Your task to perform on an android device: Add "panasonic triple a" to the cart on amazon Image 0: 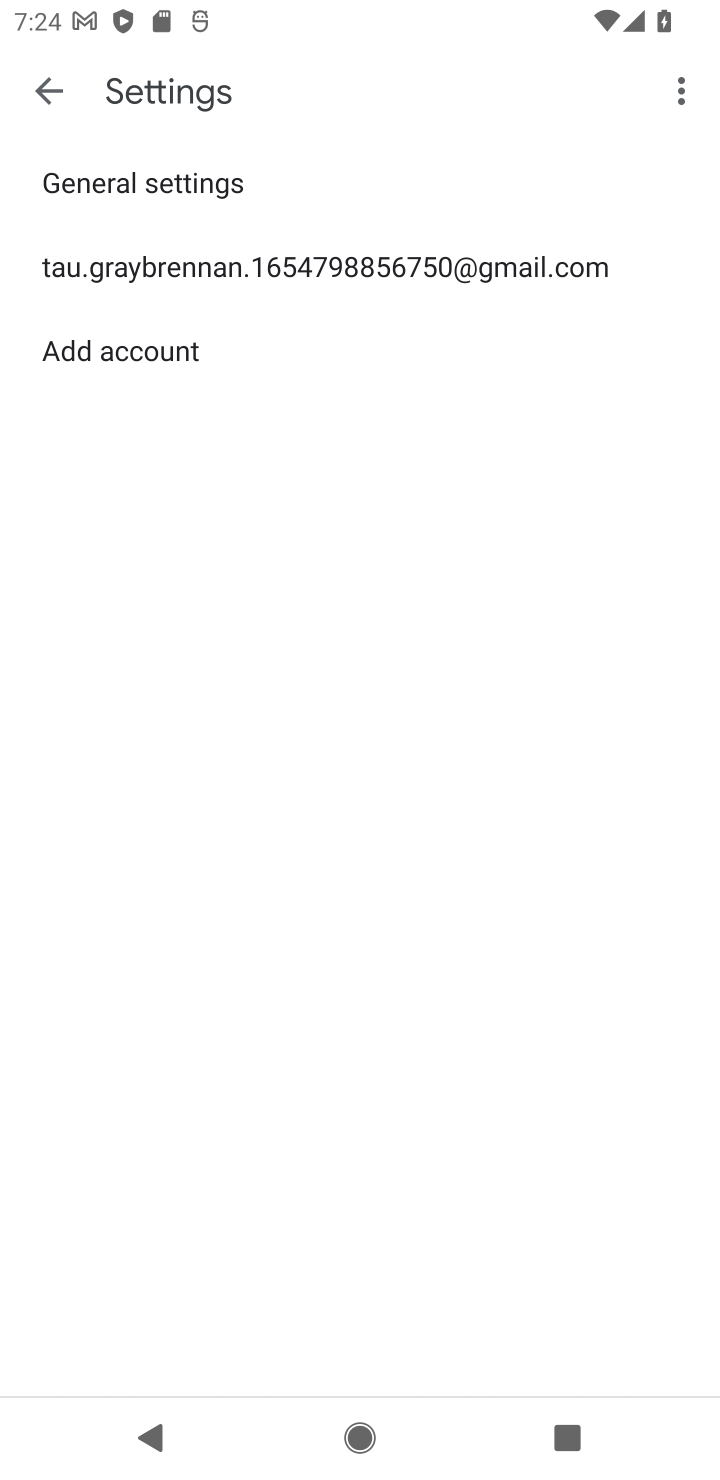
Step 0: press home button
Your task to perform on an android device: Add "panasonic triple a" to the cart on amazon Image 1: 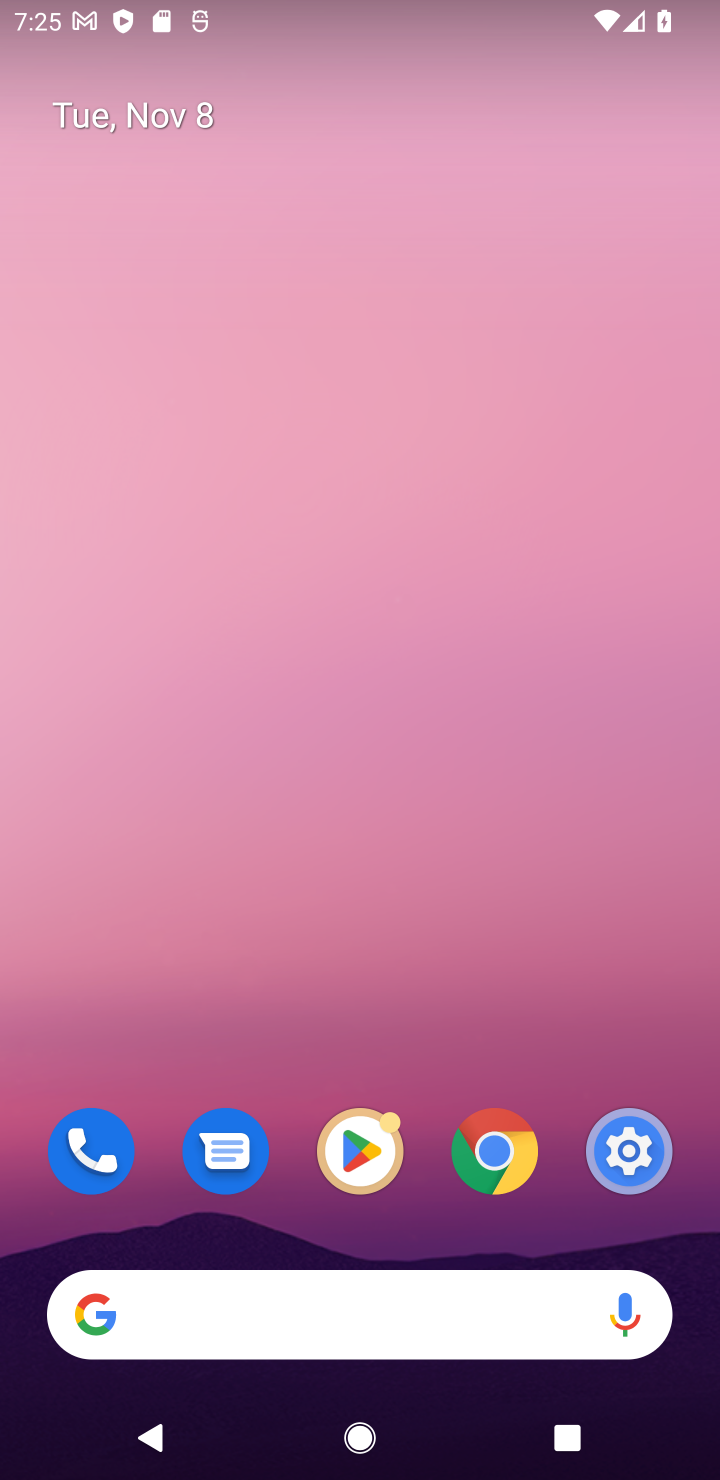
Step 1: press home button
Your task to perform on an android device: Add "panasonic triple a" to the cart on amazon Image 2: 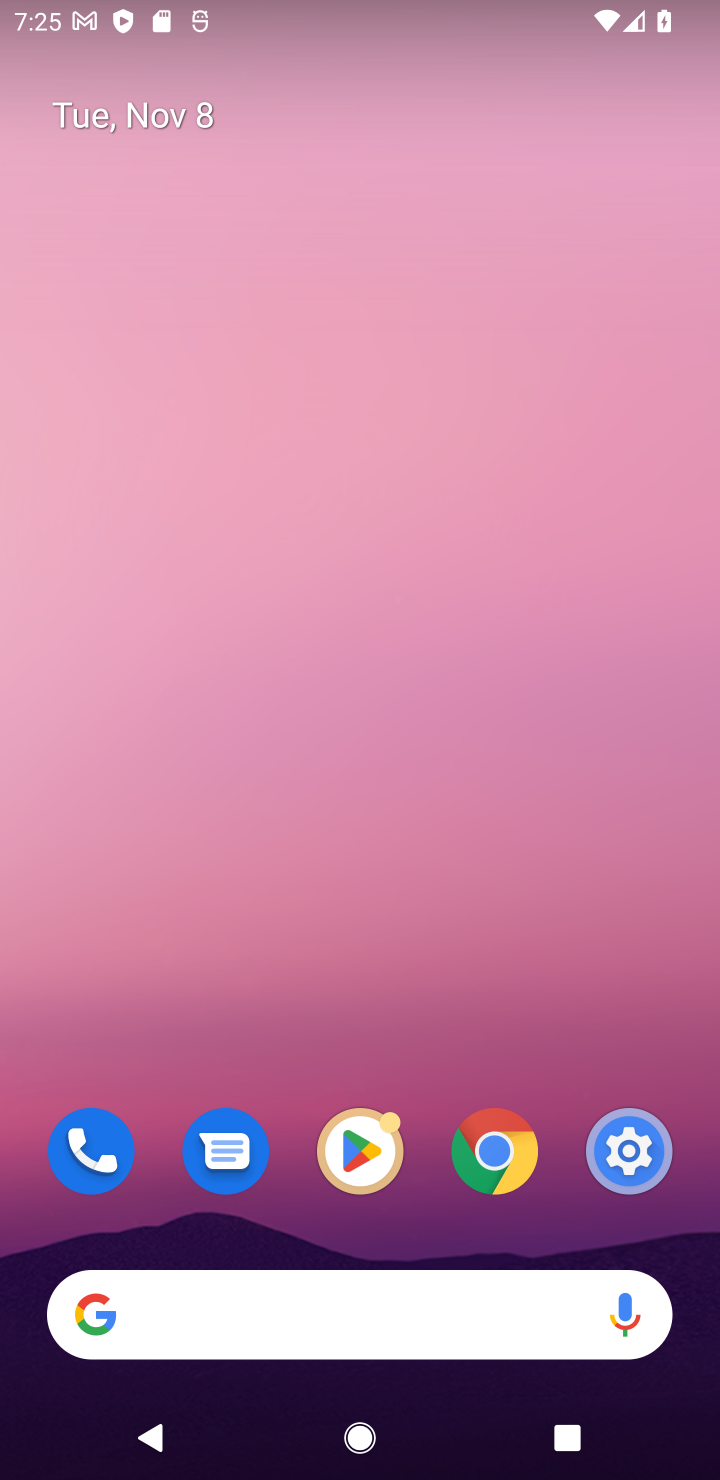
Step 2: click (328, 1350)
Your task to perform on an android device: Add "panasonic triple a" to the cart on amazon Image 3: 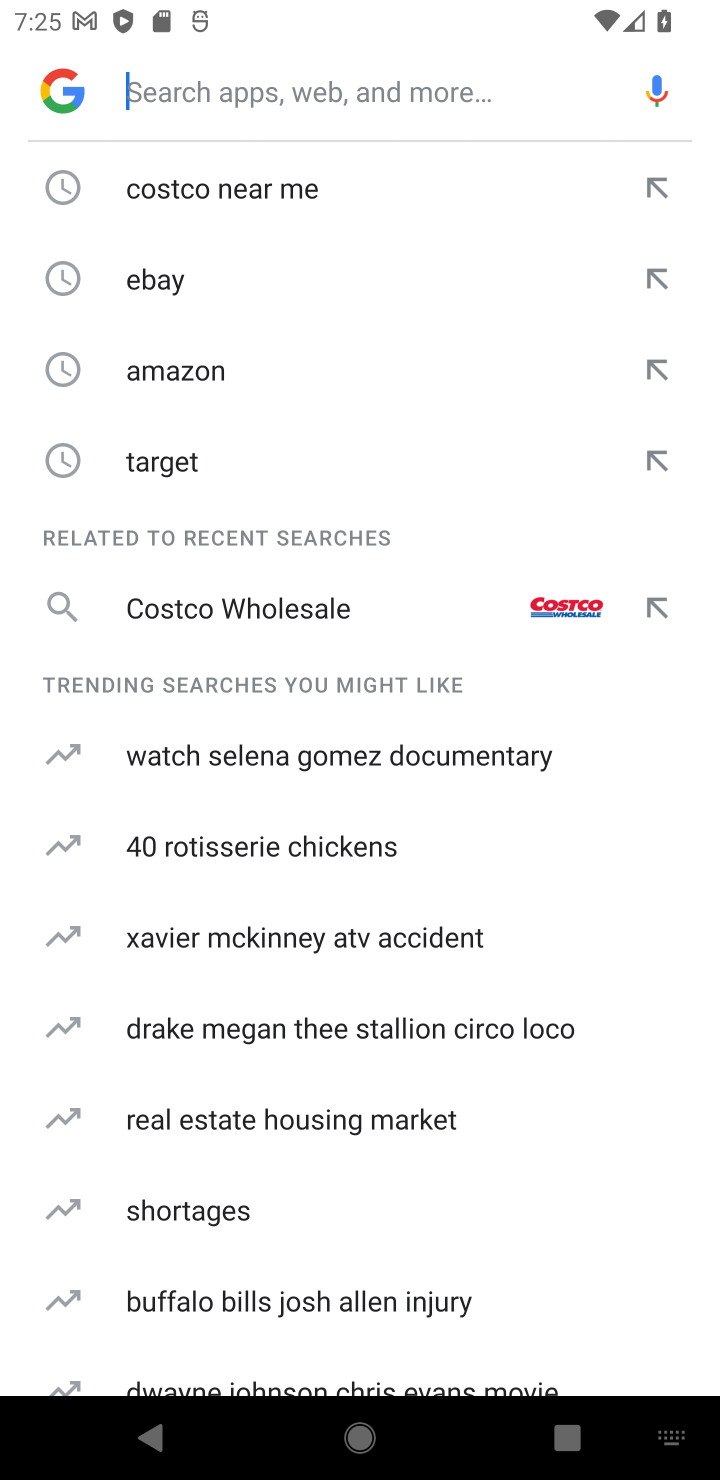
Step 3: type "amazon"
Your task to perform on an android device: Add "panasonic triple a" to the cart on amazon Image 4: 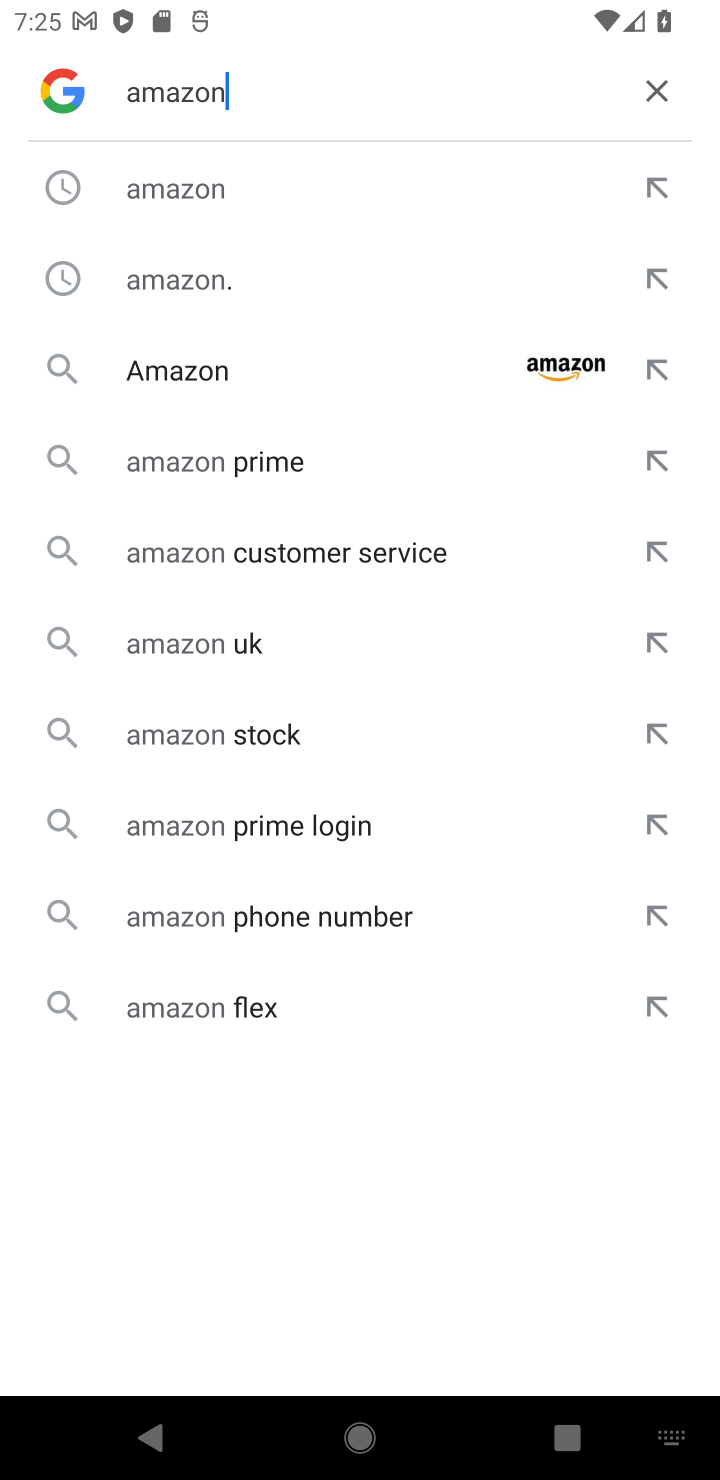
Step 4: click (304, 395)
Your task to perform on an android device: Add "panasonic triple a" to the cart on amazon Image 5: 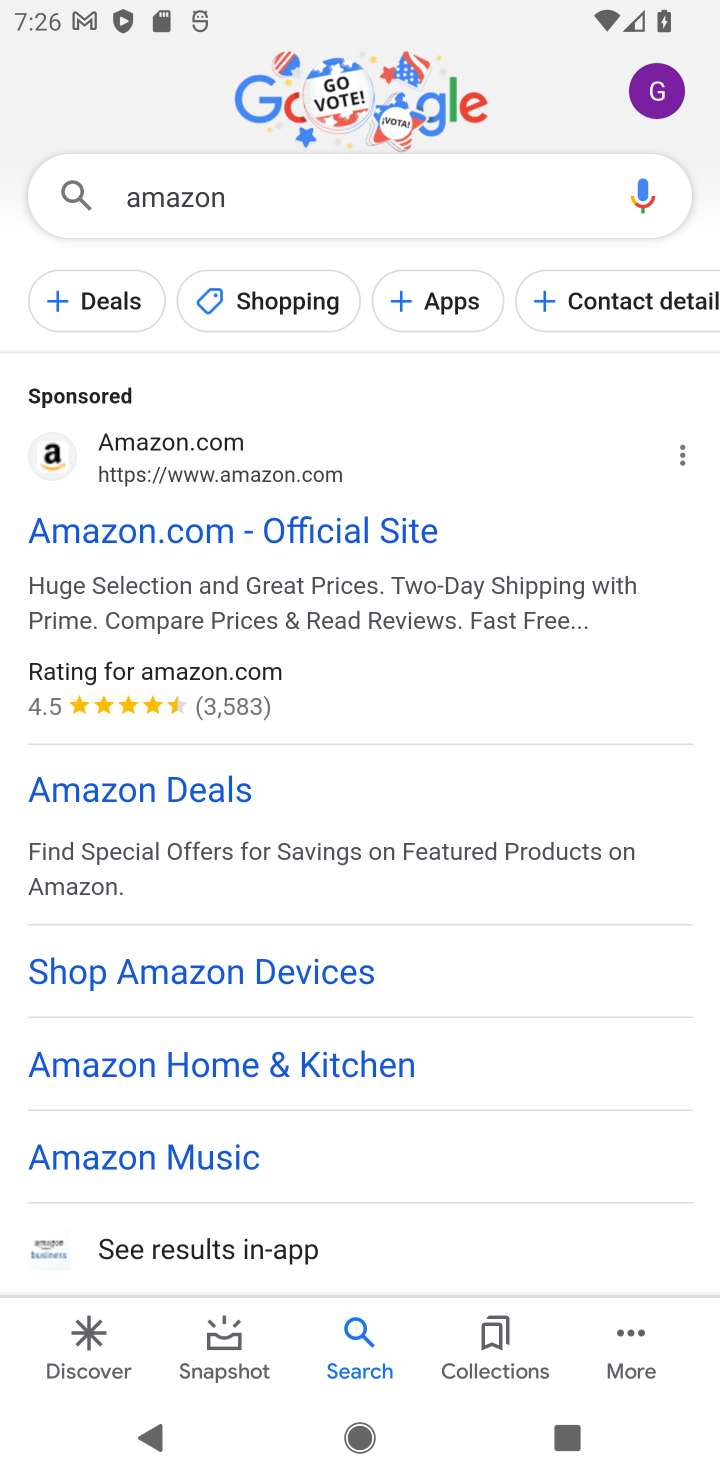
Step 5: click (103, 524)
Your task to perform on an android device: Add "panasonic triple a" to the cart on amazon Image 6: 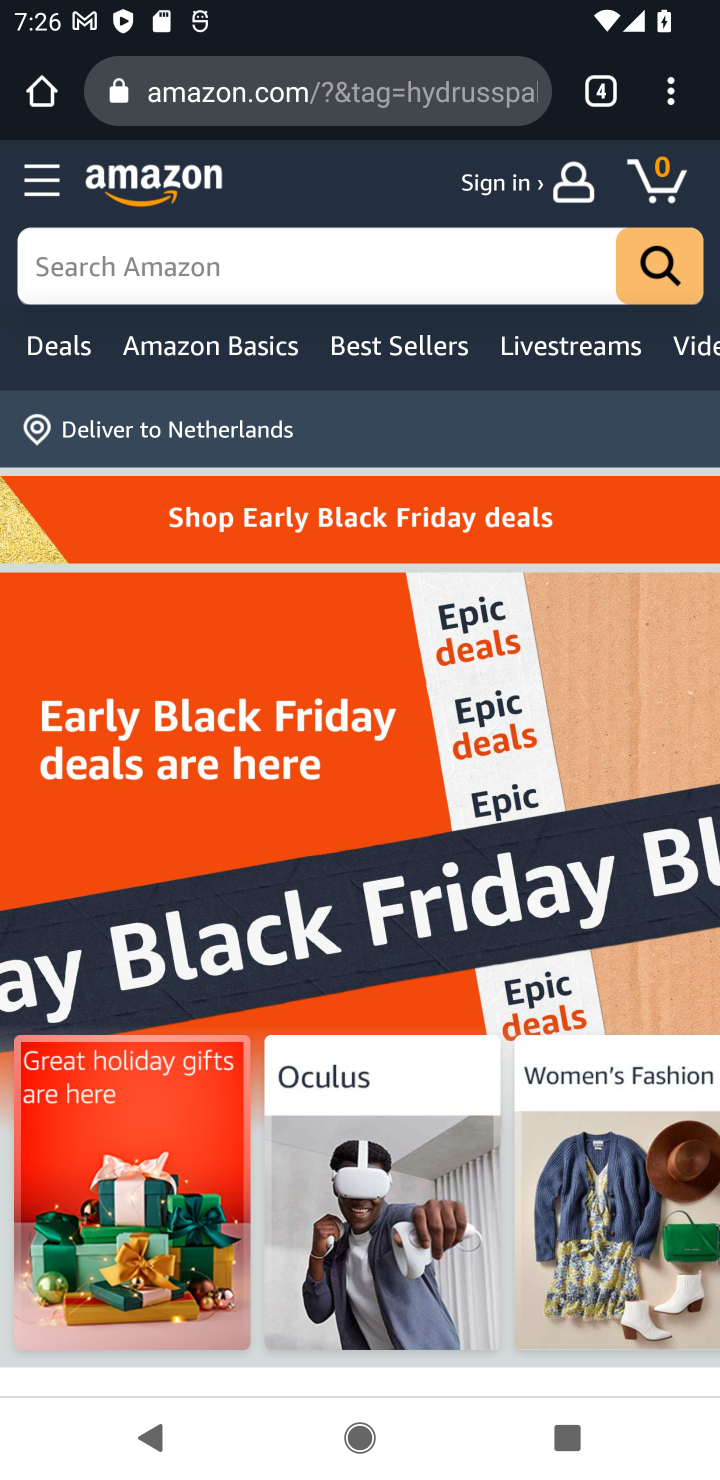
Step 6: click (378, 274)
Your task to perform on an android device: Add "panasonic triple a" to the cart on amazon Image 7: 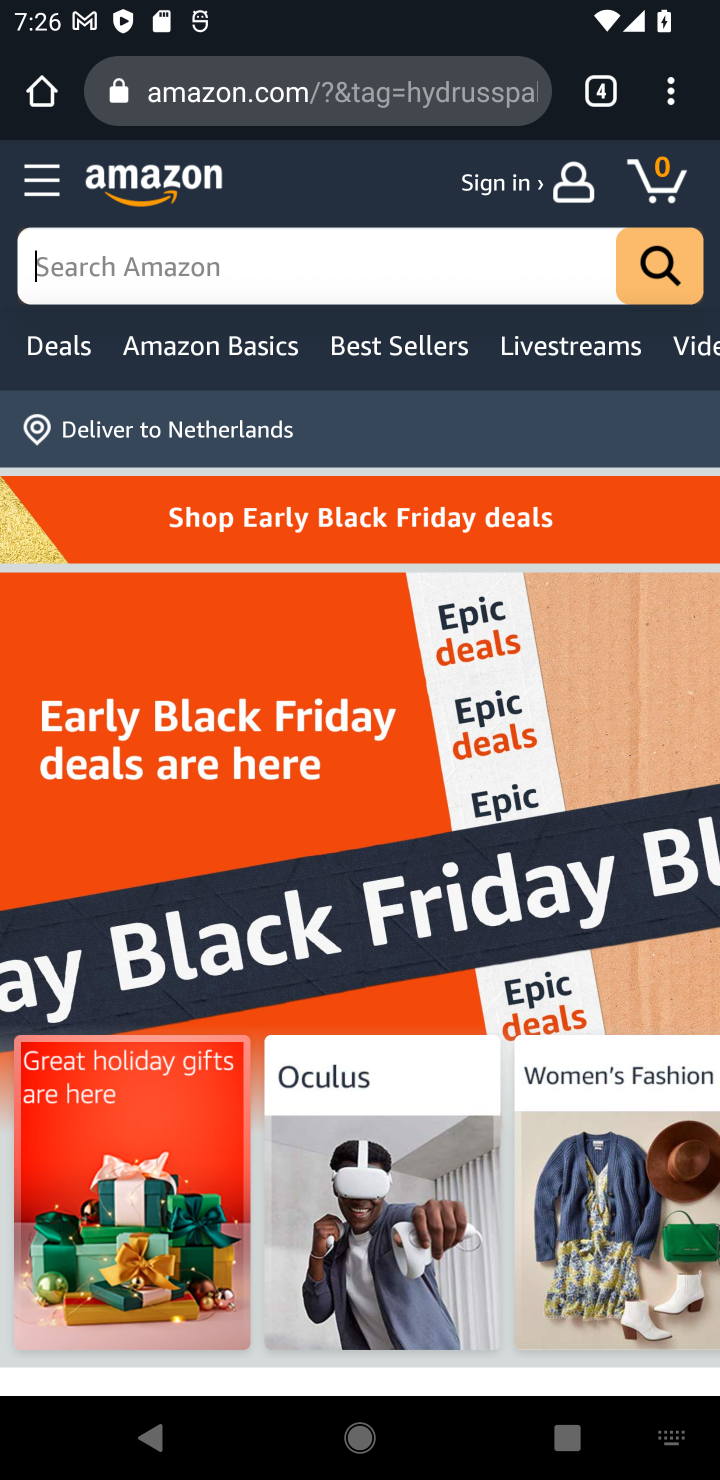
Step 7: type "panasonic"
Your task to perform on an android device: Add "panasonic triple a" to the cart on amazon Image 8: 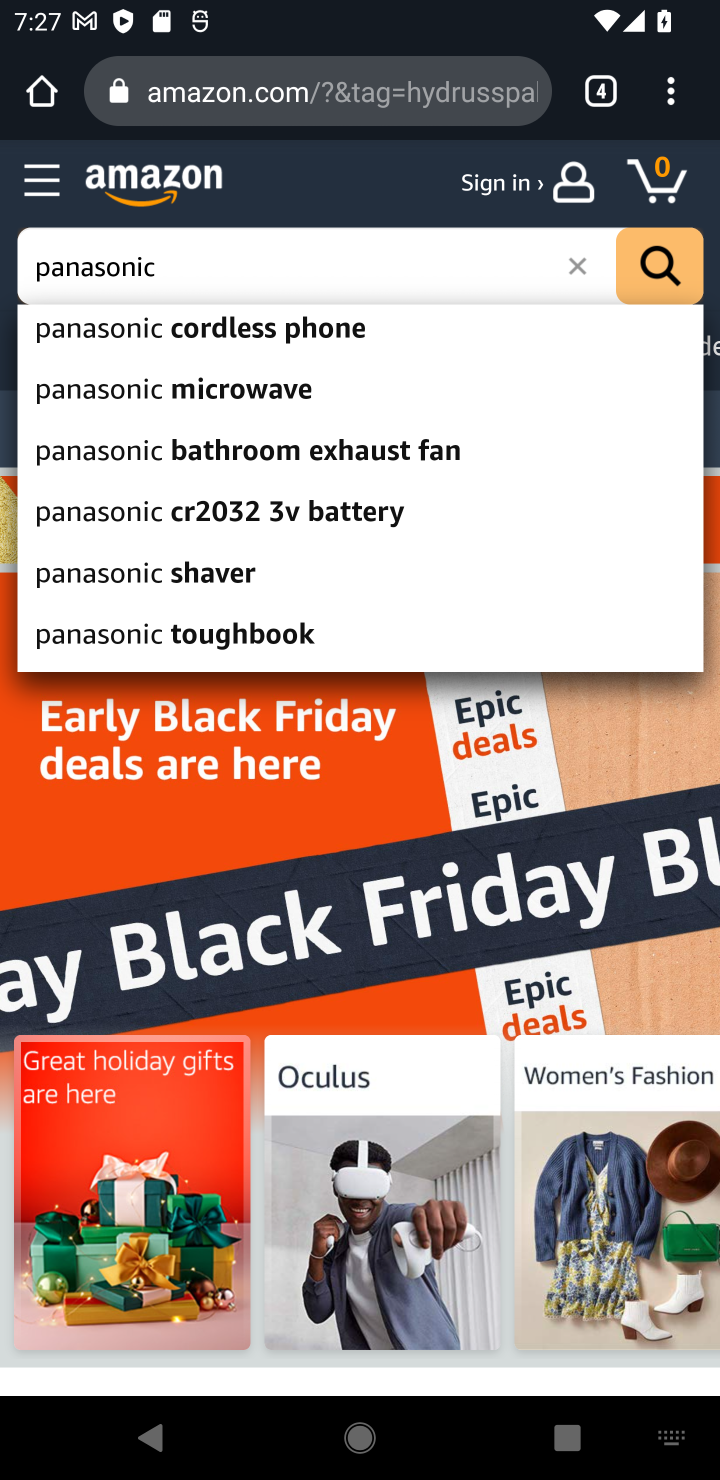
Step 8: type " triple aaa"
Your task to perform on an android device: Add "panasonic triple a" to the cart on amazon Image 9: 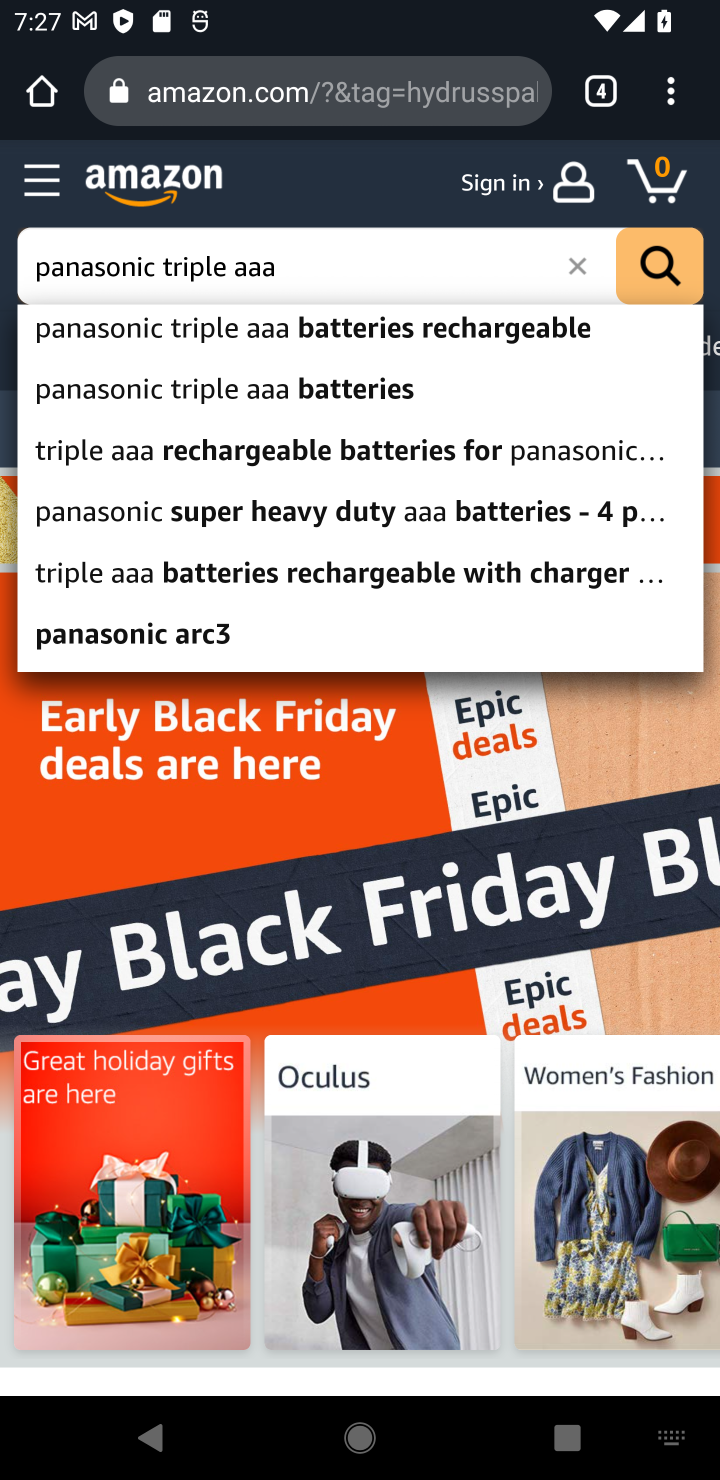
Step 9: click (382, 332)
Your task to perform on an android device: Add "panasonic triple a" to the cart on amazon Image 10: 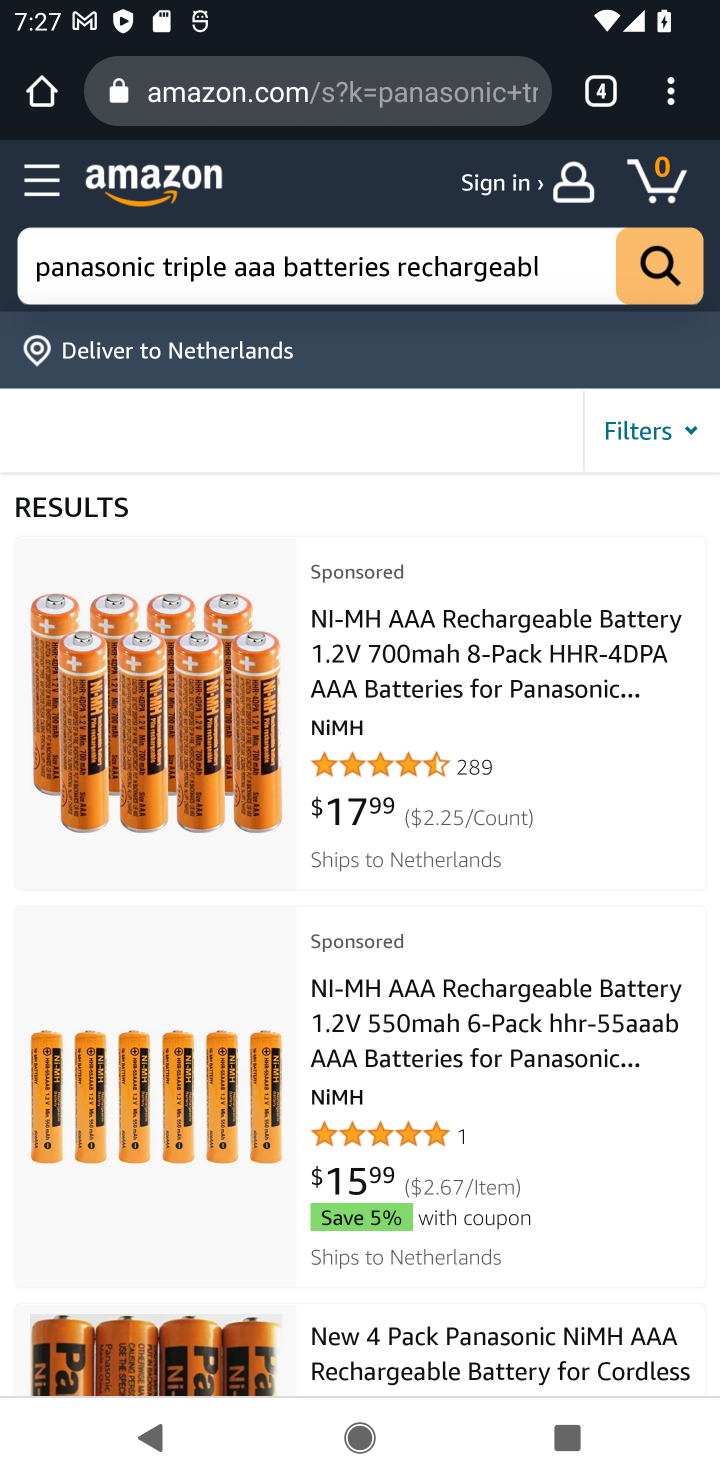
Step 10: click (363, 600)
Your task to perform on an android device: Add "panasonic triple a" to the cart on amazon Image 11: 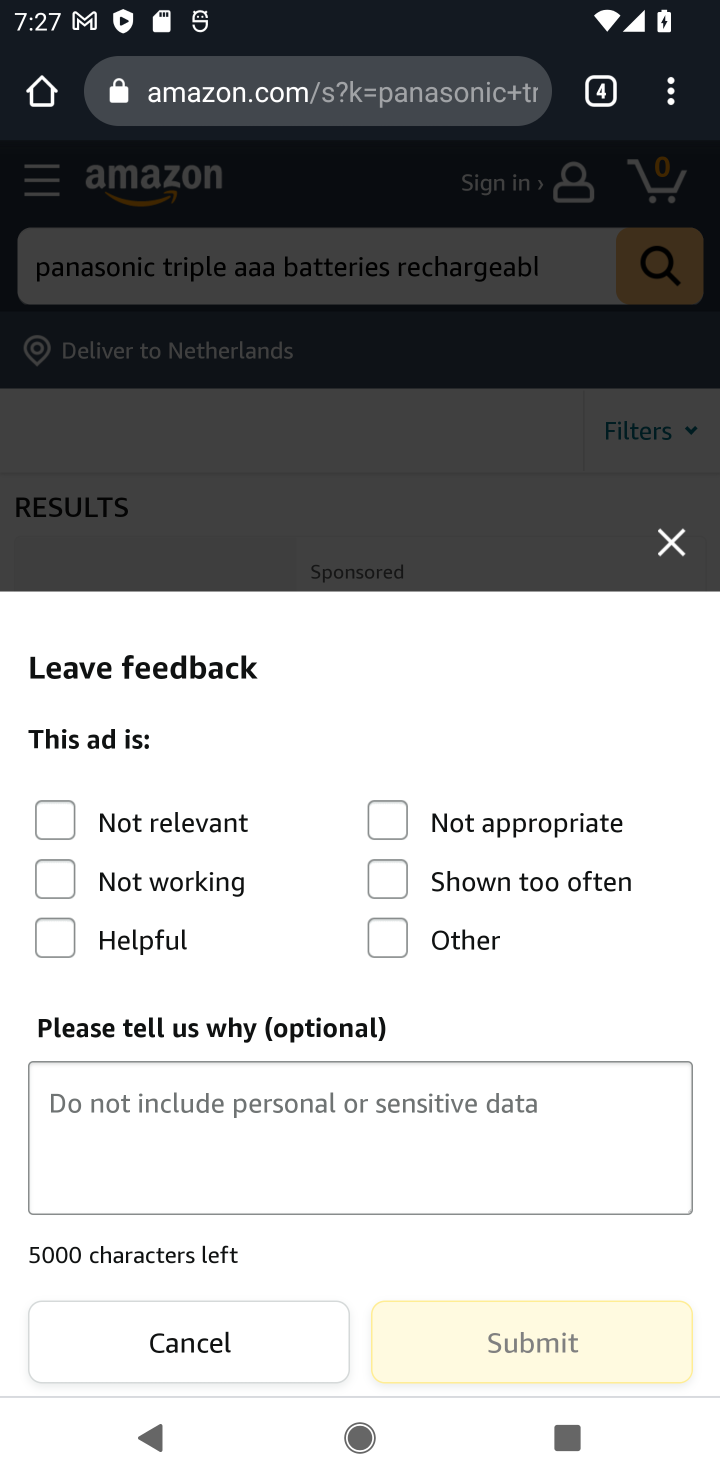
Step 11: click (684, 544)
Your task to perform on an android device: Add "panasonic triple a" to the cart on amazon Image 12: 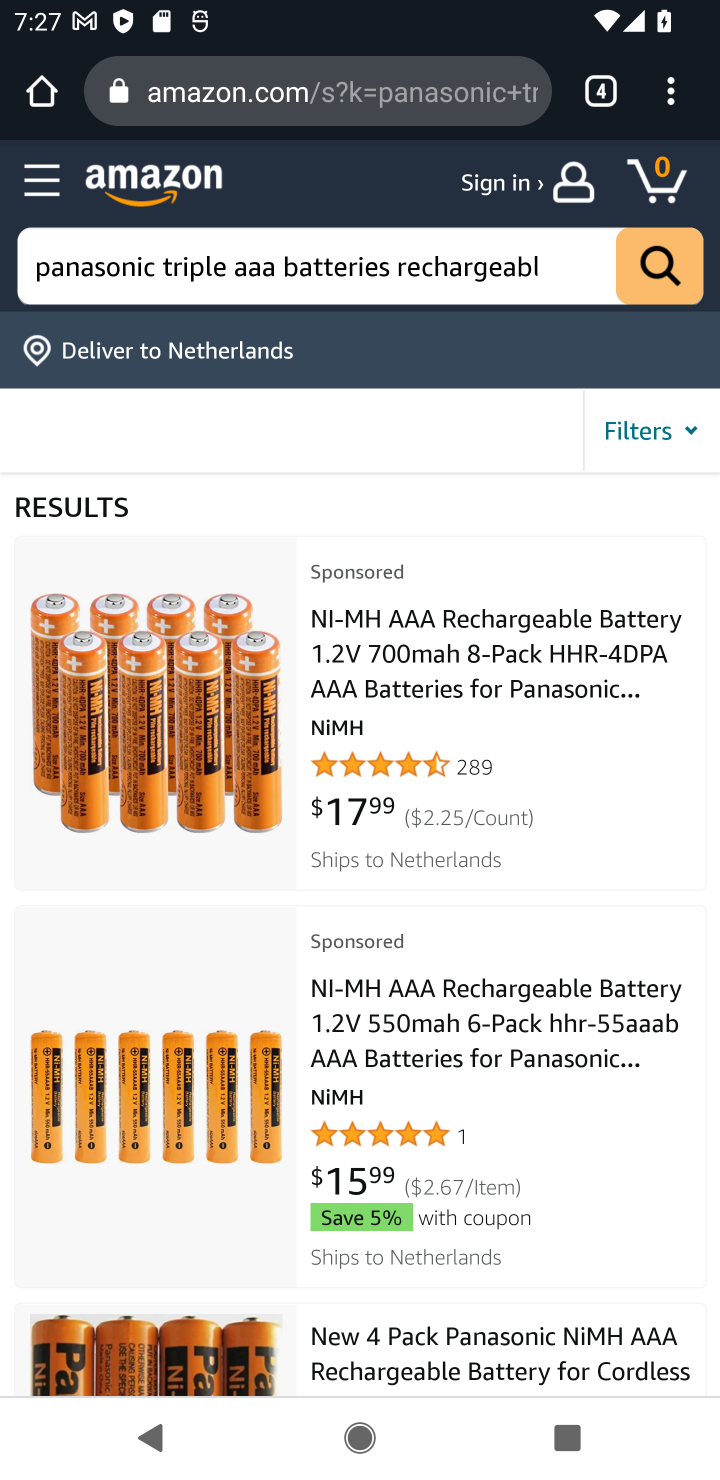
Step 12: click (432, 896)
Your task to perform on an android device: Add "panasonic triple a" to the cart on amazon Image 13: 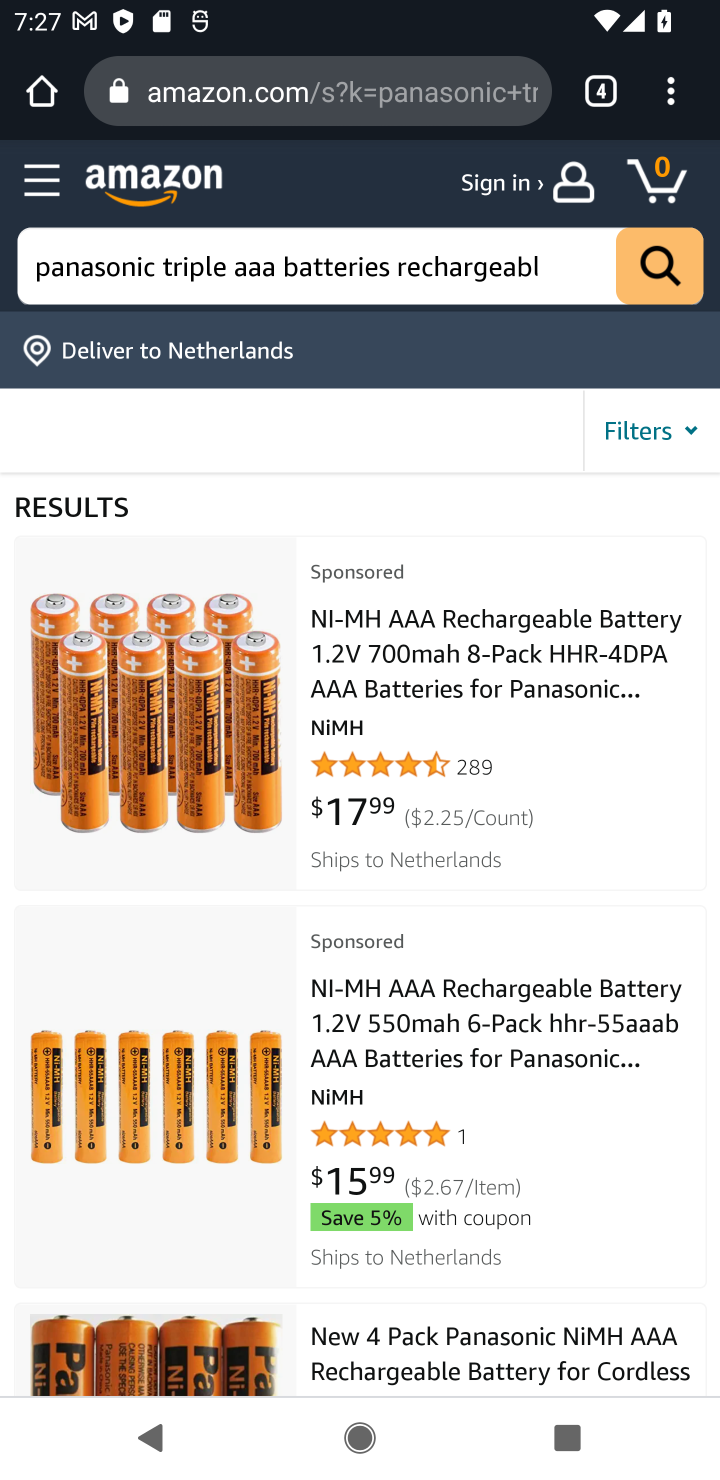
Step 13: task complete